Your task to perform on an android device: turn pop-ups on in chrome Image 0: 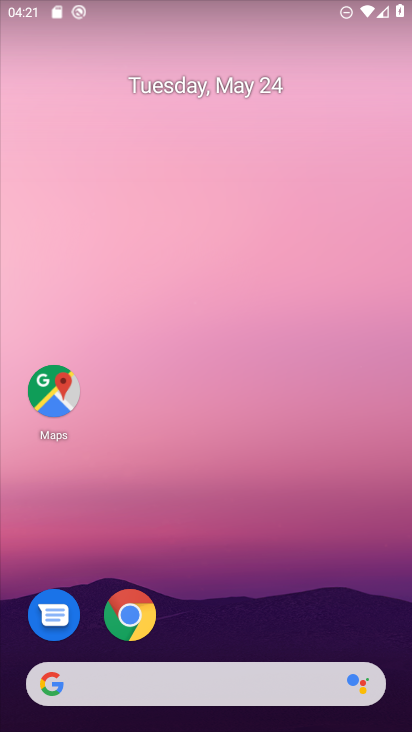
Step 0: drag from (304, 605) to (295, 34)
Your task to perform on an android device: turn pop-ups on in chrome Image 1: 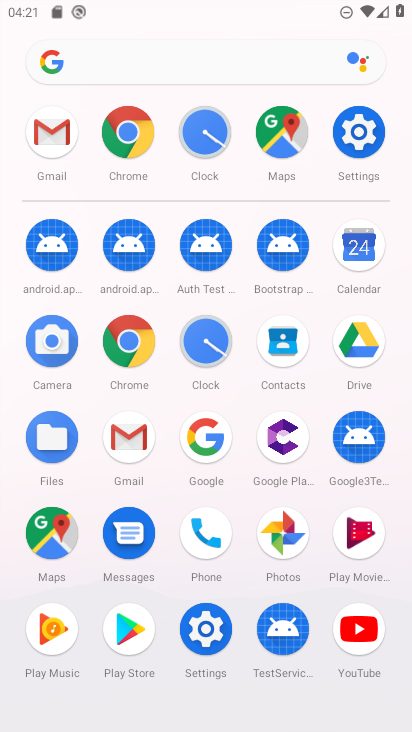
Step 1: drag from (6, 556) to (6, 276)
Your task to perform on an android device: turn pop-ups on in chrome Image 2: 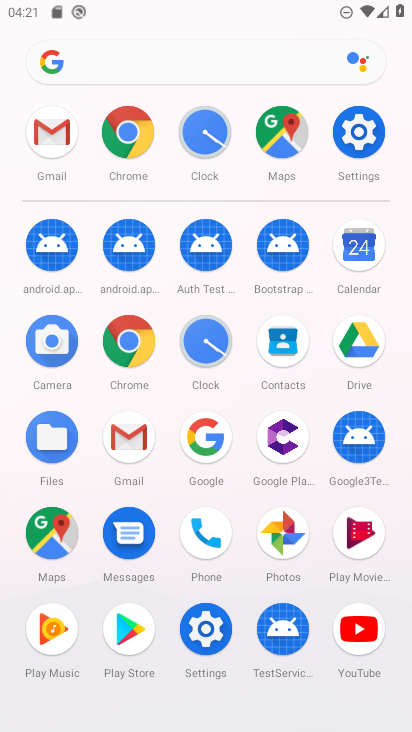
Step 2: click (123, 332)
Your task to perform on an android device: turn pop-ups on in chrome Image 3: 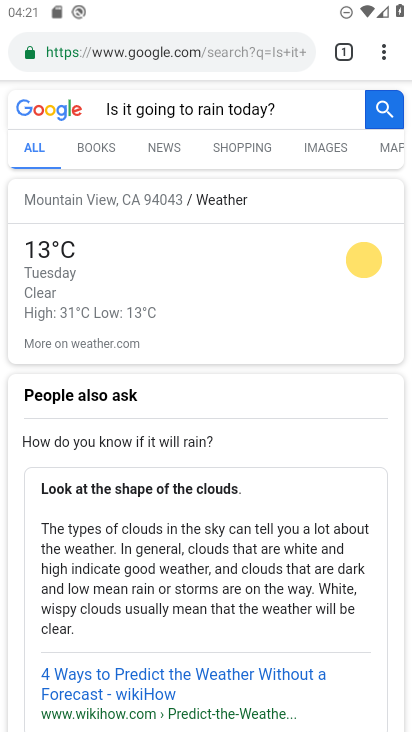
Step 3: drag from (381, 51) to (201, 570)
Your task to perform on an android device: turn pop-ups on in chrome Image 4: 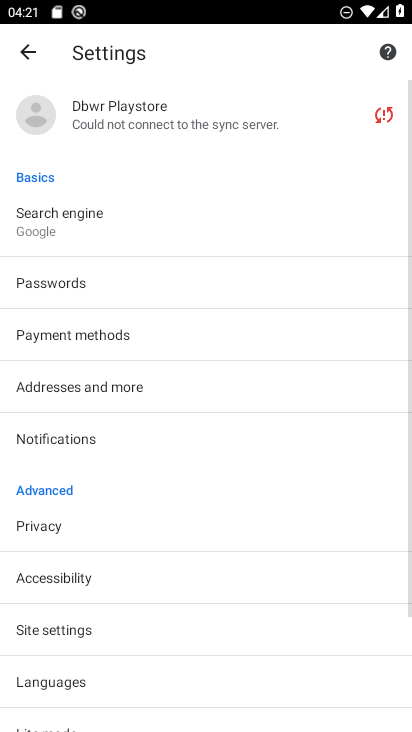
Step 4: drag from (185, 589) to (221, 102)
Your task to perform on an android device: turn pop-ups on in chrome Image 5: 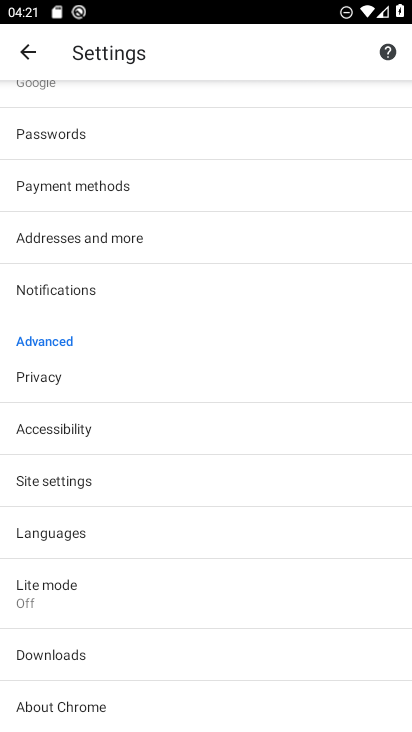
Step 5: click (101, 475)
Your task to perform on an android device: turn pop-ups on in chrome Image 6: 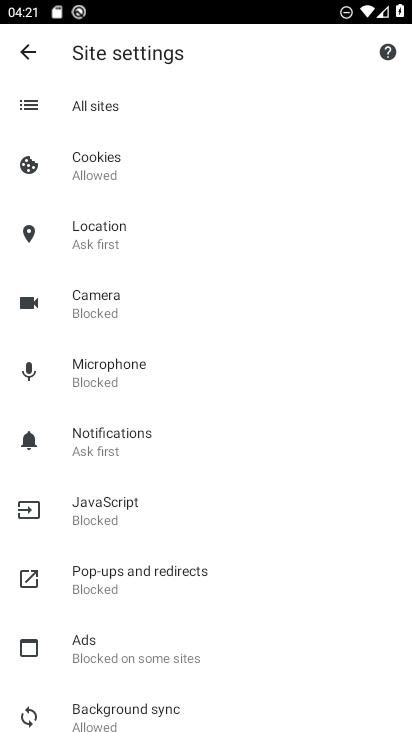
Step 6: click (135, 577)
Your task to perform on an android device: turn pop-ups on in chrome Image 7: 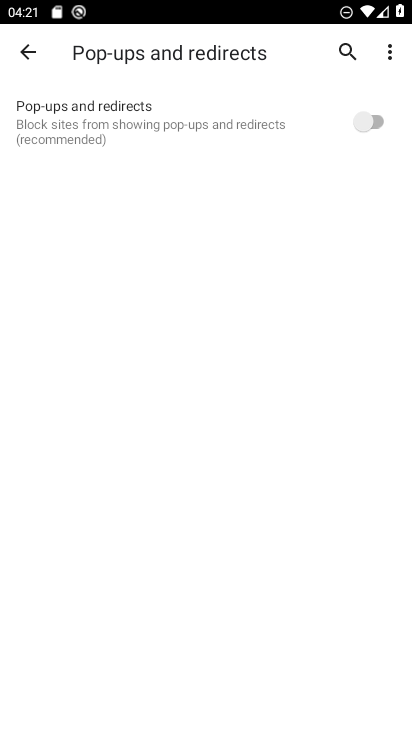
Step 7: click (370, 123)
Your task to perform on an android device: turn pop-ups on in chrome Image 8: 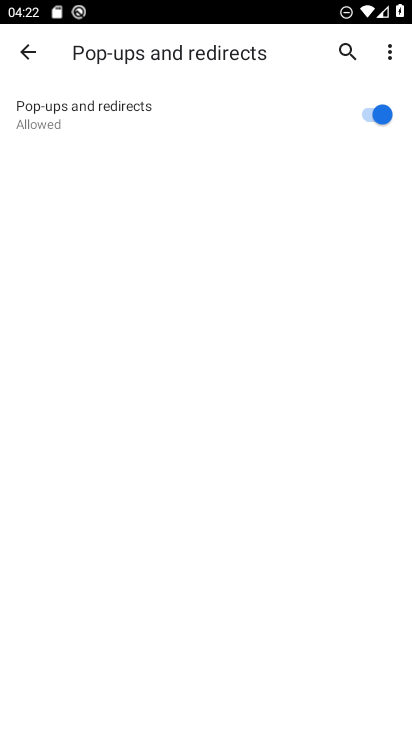
Step 8: task complete